Your task to perform on an android device: Open Google Image 0: 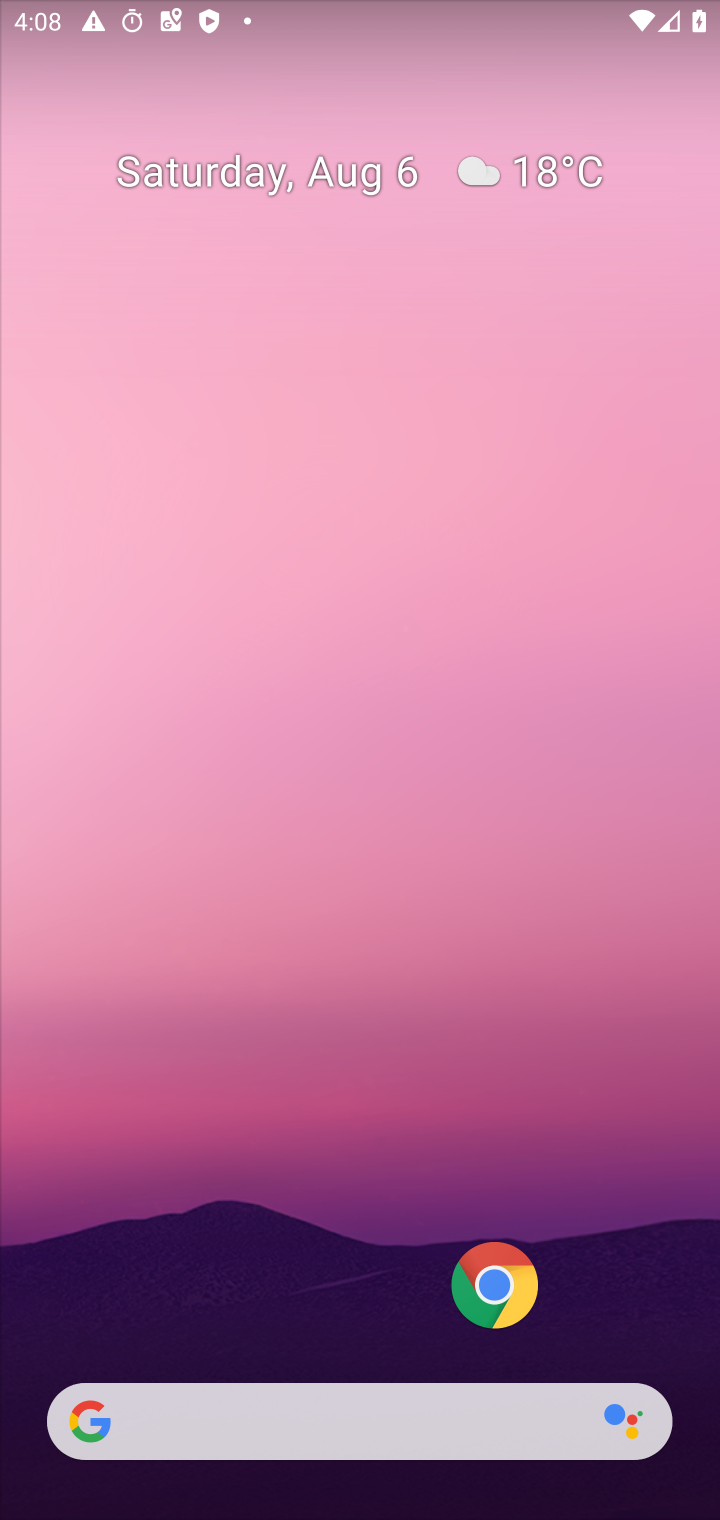
Step 0: drag from (344, 1302) to (433, 228)
Your task to perform on an android device: Open Google Image 1: 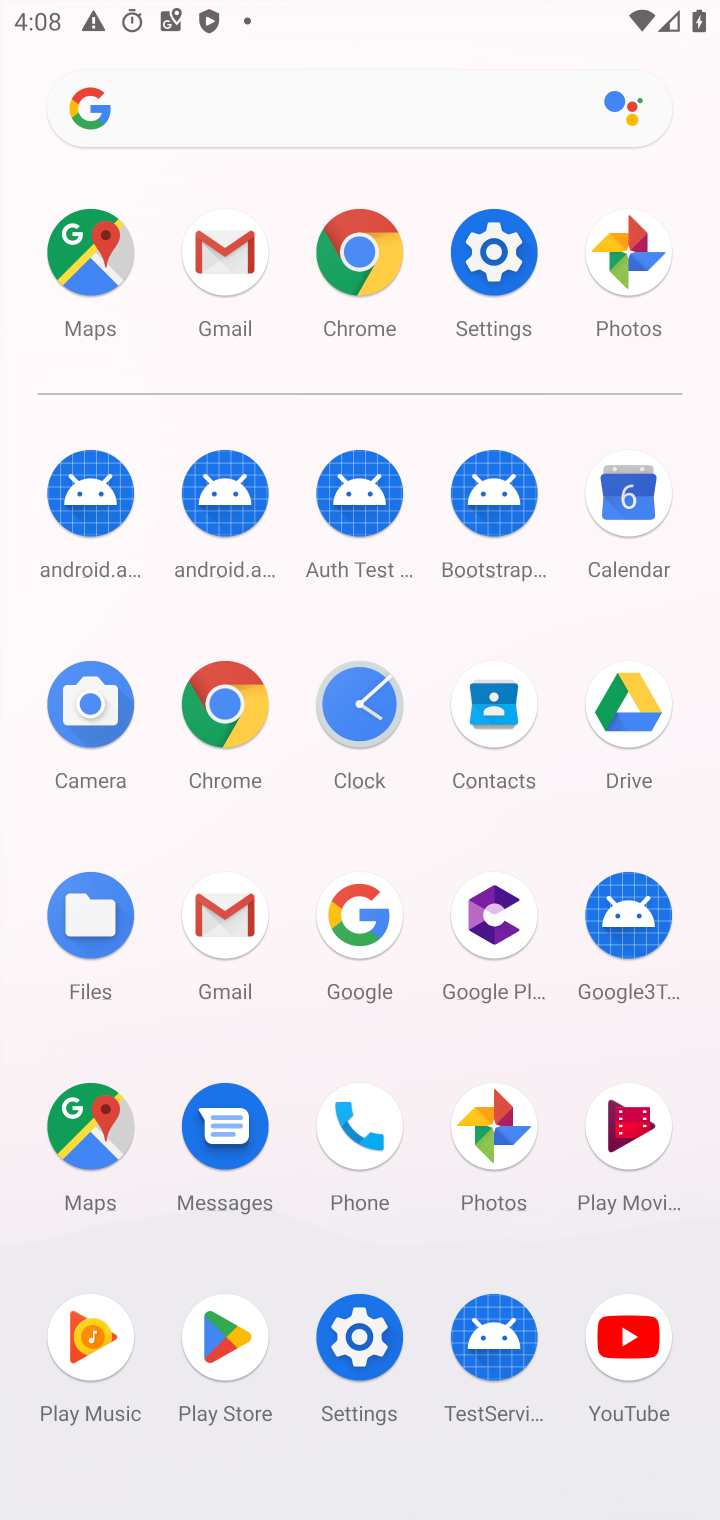
Step 1: click (359, 895)
Your task to perform on an android device: Open Google Image 2: 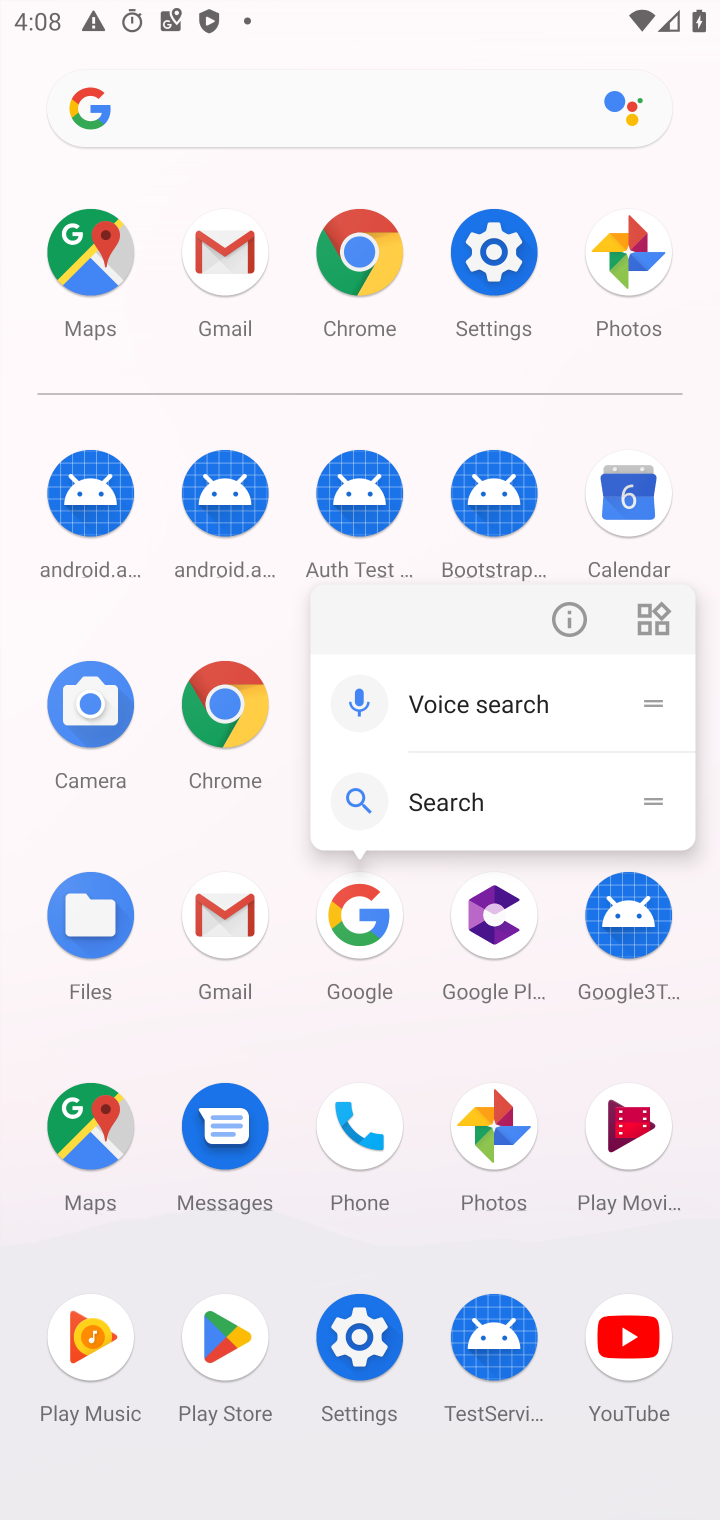
Step 2: click (362, 912)
Your task to perform on an android device: Open Google Image 3: 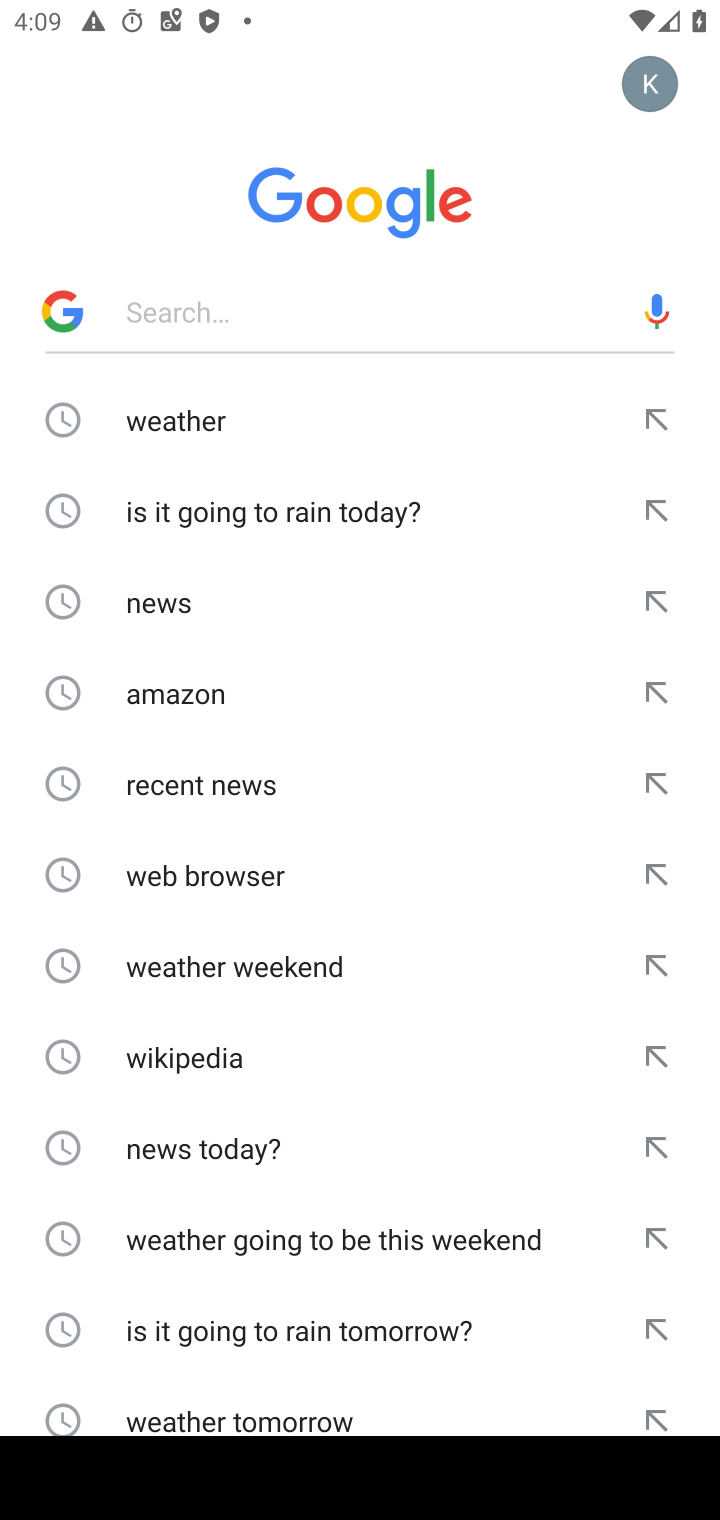
Step 3: press back button
Your task to perform on an android device: Open Google Image 4: 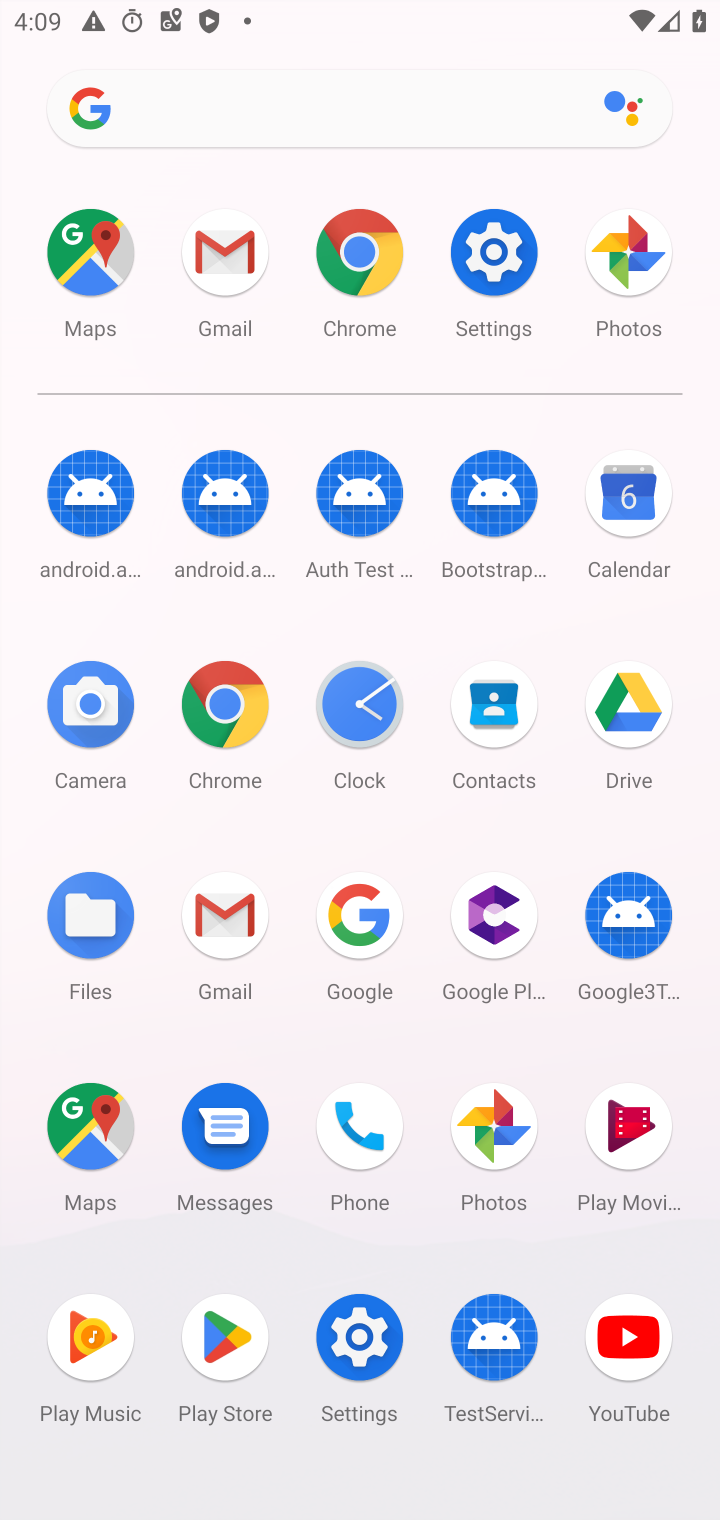
Step 4: click (344, 910)
Your task to perform on an android device: Open Google Image 5: 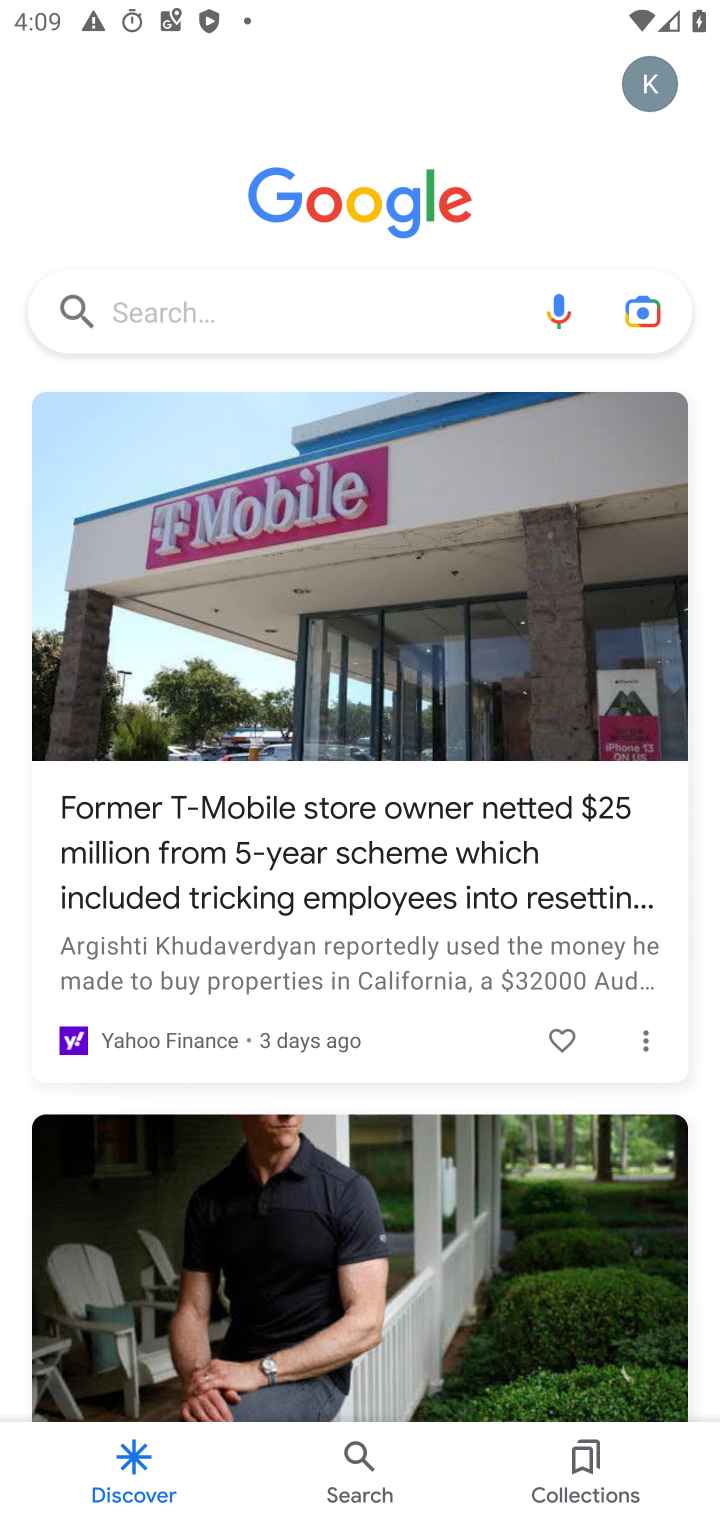
Step 5: drag from (392, 1207) to (427, 523)
Your task to perform on an android device: Open Google Image 6: 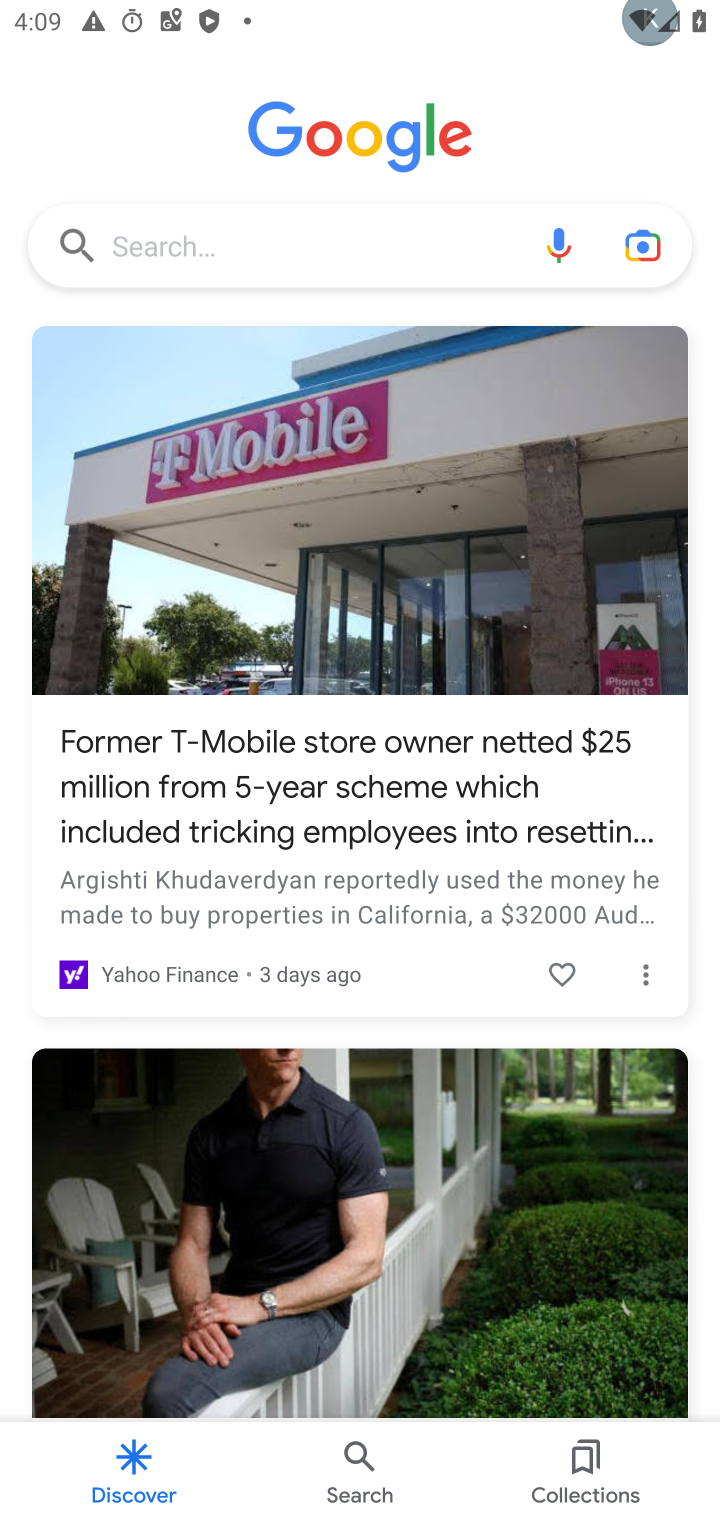
Step 6: click (347, 1460)
Your task to perform on an android device: Open Google Image 7: 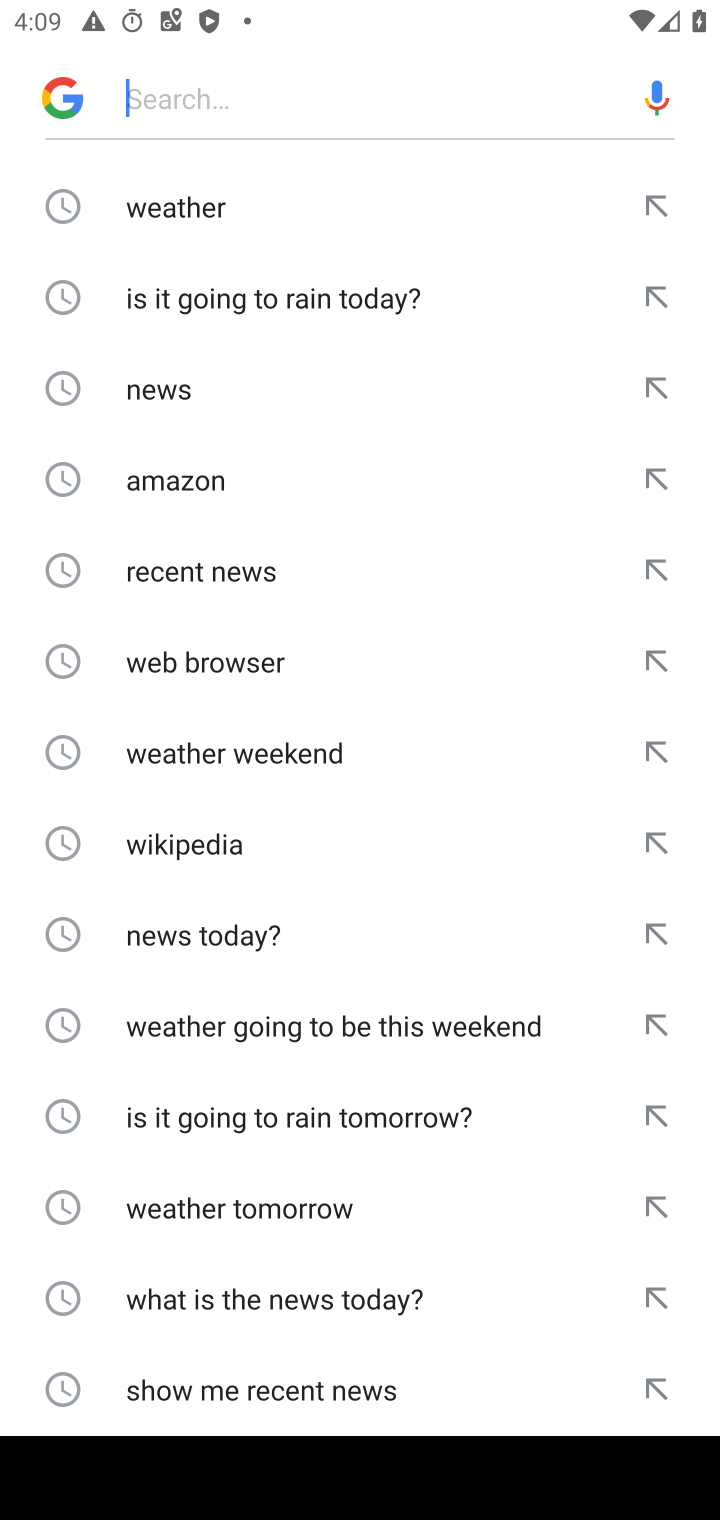
Step 7: task complete